Your task to perform on an android device: find photos in the google photos app Image 0: 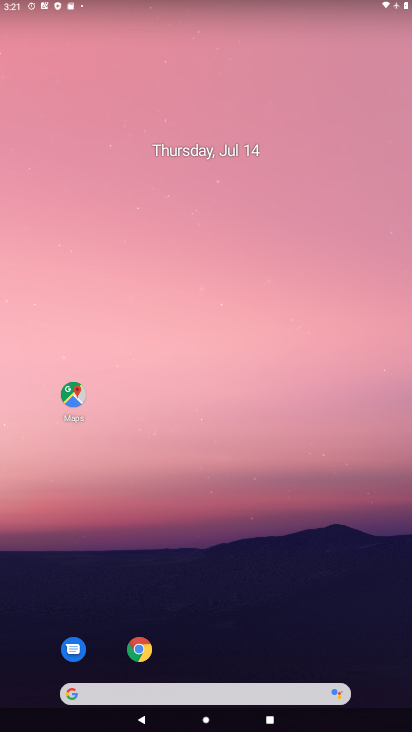
Step 0: drag from (198, 650) to (195, 122)
Your task to perform on an android device: find photos in the google photos app Image 1: 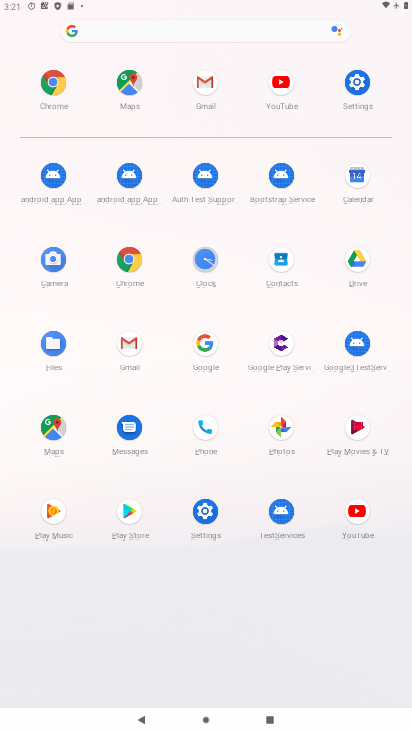
Step 1: click (284, 433)
Your task to perform on an android device: find photos in the google photos app Image 2: 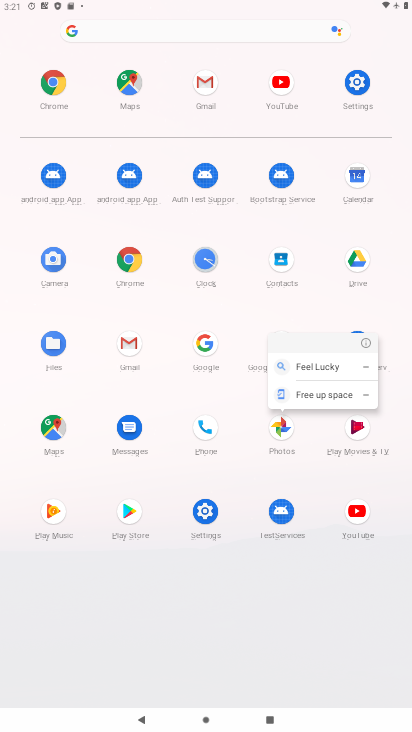
Step 2: click (278, 427)
Your task to perform on an android device: find photos in the google photos app Image 3: 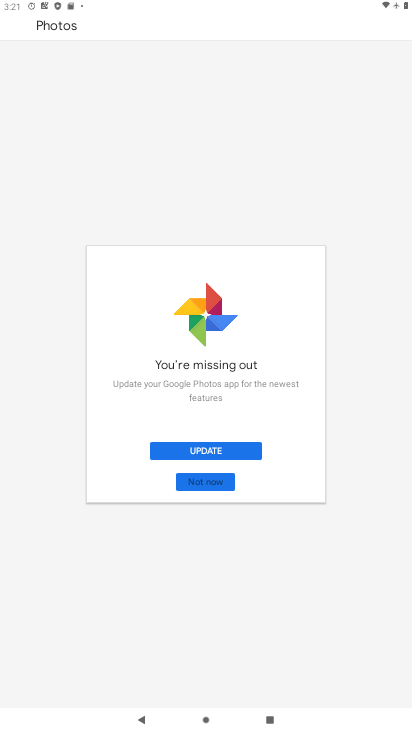
Step 3: click (185, 475)
Your task to perform on an android device: find photos in the google photos app Image 4: 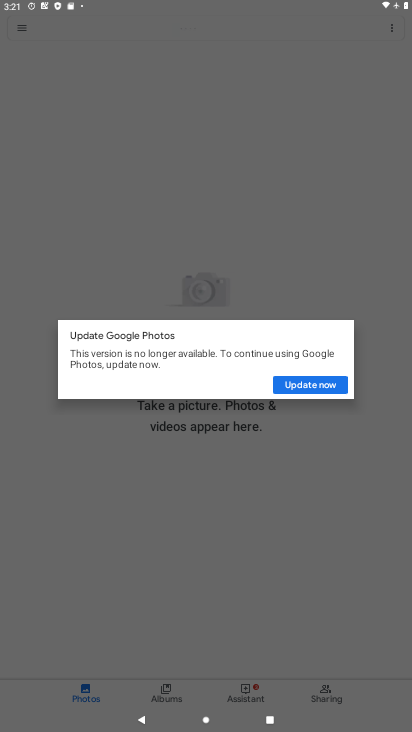
Step 4: click (313, 393)
Your task to perform on an android device: find photos in the google photos app Image 5: 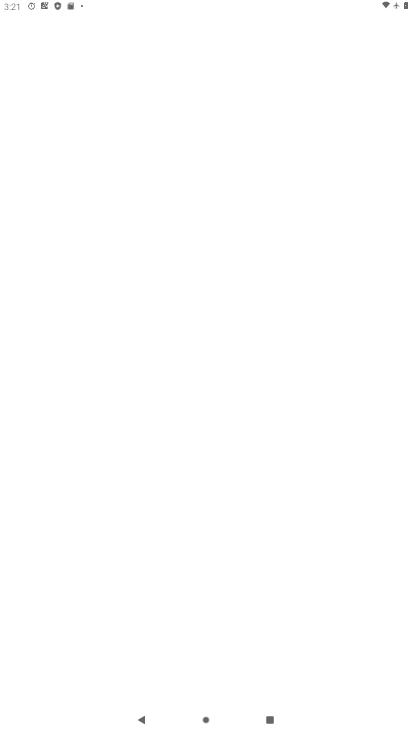
Step 5: task complete